Your task to perform on an android device: change your default location settings in chrome Image 0: 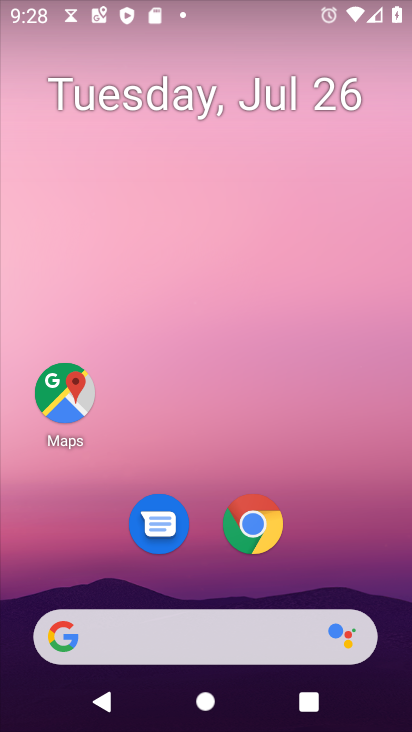
Step 0: click (255, 526)
Your task to perform on an android device: change your default location settings in chrome Image 1: 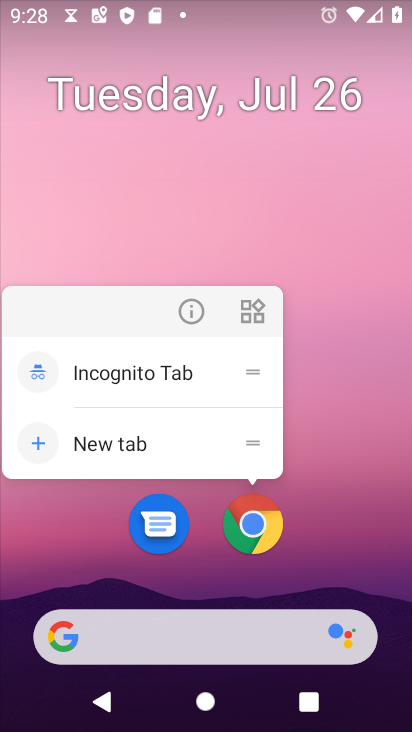
Step 1: click (254, 533)
Your task to perform on an android device: change your default location settings in chrome Image 2: 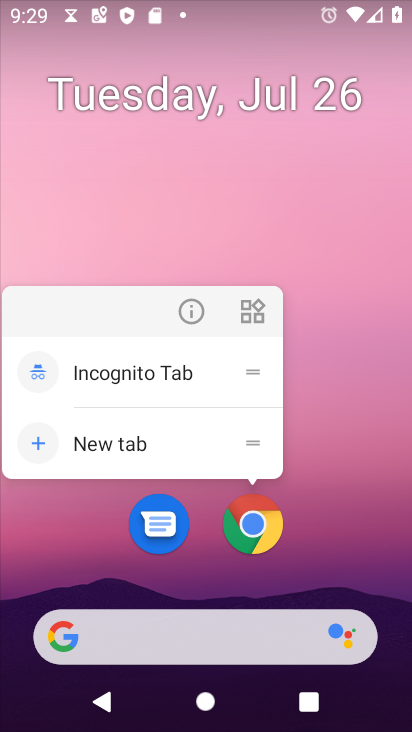
Step 2: click (250, 517)
Your task to perform on an android device: change your default location settings in chrome Image 3: 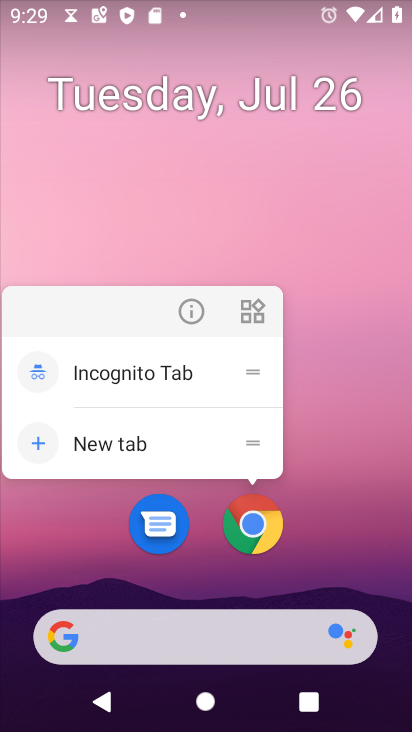
Step 3: click (245, 525)
Your task to perform on an android device: change your default location settings in chrome Image 4: 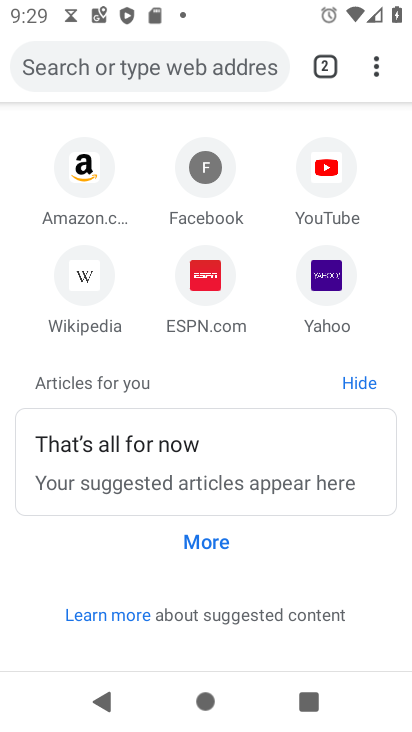
Step 4: drag from (378, 74) to (185, 564)
Your task to perform on an android device: change your default location settings in chrome Image 5: 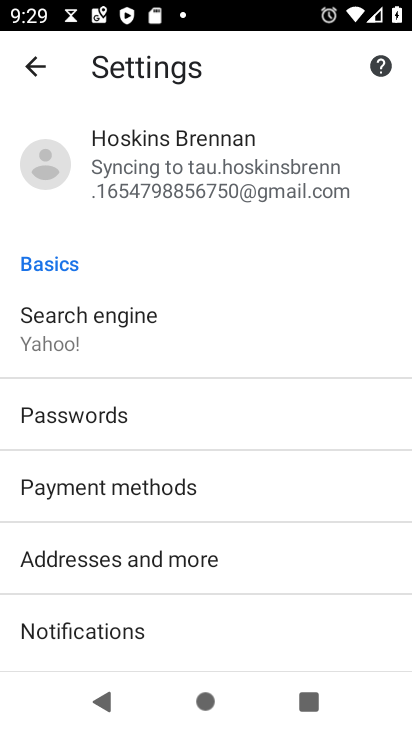
Step 5: drag from (135, 625) to (279, 185)
Your task to perform on an android device: change your default location settings in chrome Image 6: 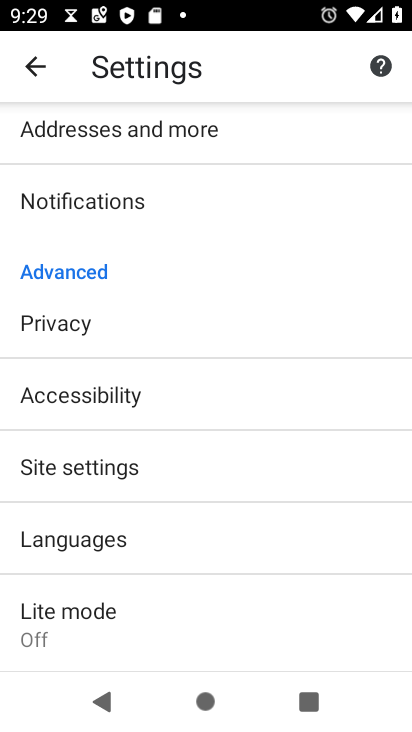
Step 6: click (122, 463)
Your task to perform on an android device: change your default location settings in chrome Image 7: 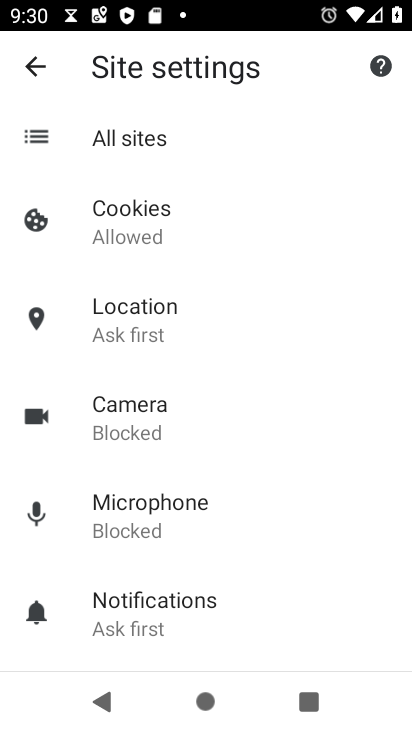
Step 7: click (116, 328)
Your task to perform on an android device: change your default location settings in chrome Image 8: 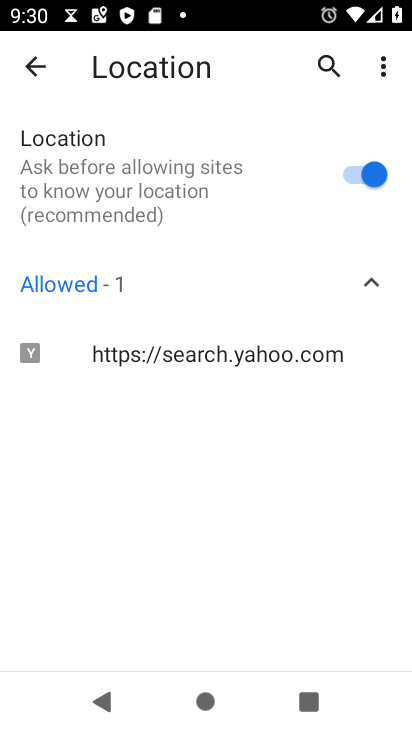
Step 8: click (351, 174)
Your task to perform on an android device: change your default location settings in chrome Image 9: 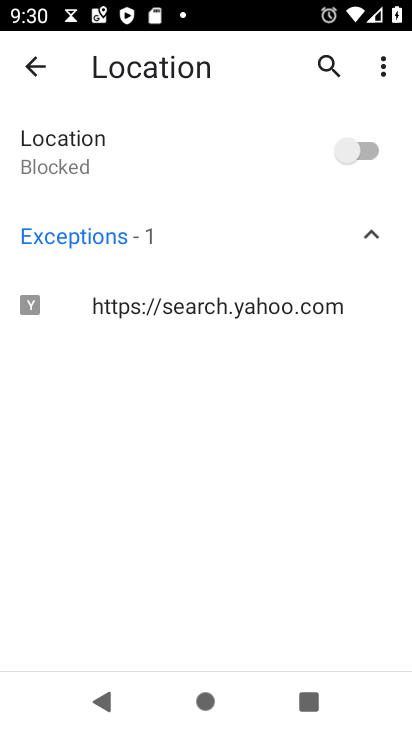
Step 9: task complete